Your task to perform on an android device: open app "Truecaller" Image 0: 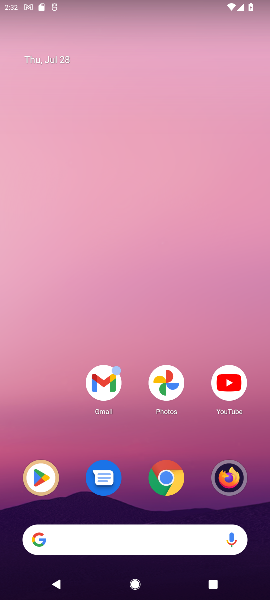
Step 0: press home button
Your task to perform on an android device: open app "Truecaller" Image 1: 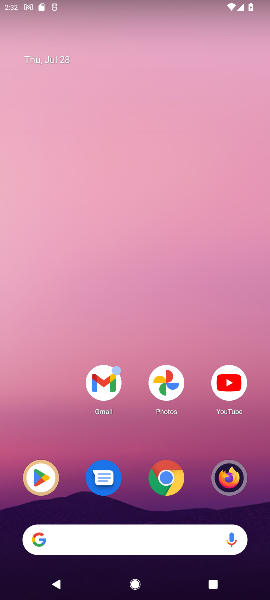
Step 1: drag from (192, 328) to (178, 42)
Your task to perform on an android device: open app "Truecaller" Image 2: 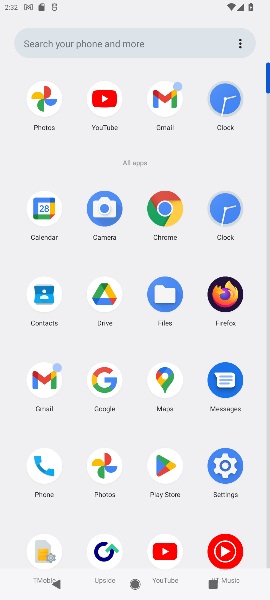
Step 2: drag from (131, 531) to (105, 253)
Your task to perform on an android device: open app "Truecaller" Image 3: 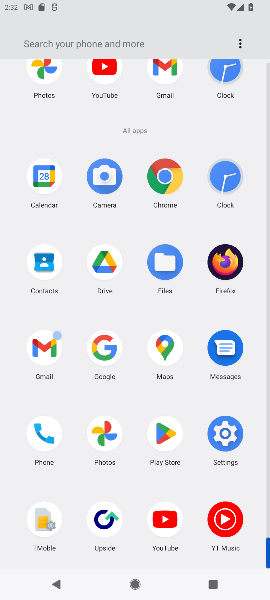
Step 3: click (159, 435)
Your task to perform on an android device: open app "Truecaller" Image 4: 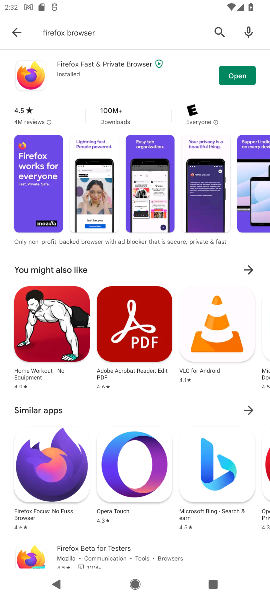
Step 4: click (13, 27)
Your task to perform on an android device: open app "Truecaller" Image 5: 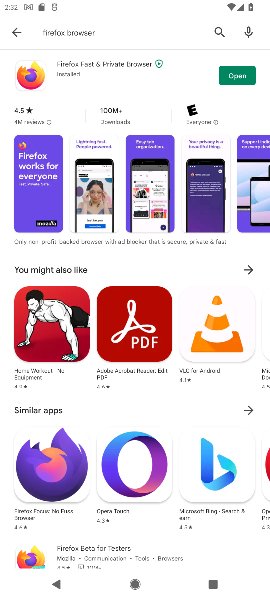
Step 5: click (111, 35)
Your task to perform on an android device: open app "Truecaller" Image 6: 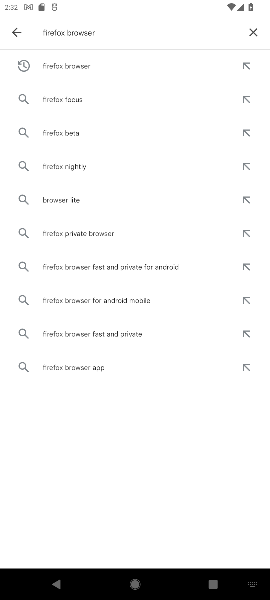
Step 6: click (254, 26)
Your task to perform on an android device: open app "Truecaller" Image 7: 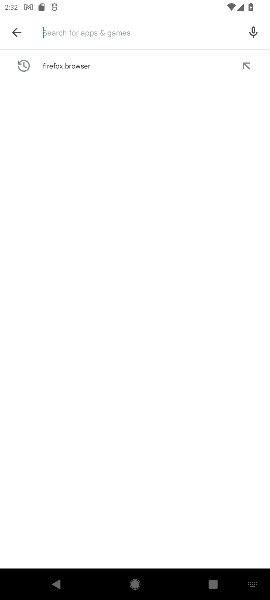
Step 7: type "Truecaller"
Your task to perform on an android device: open app "Truecaller" Image 8: 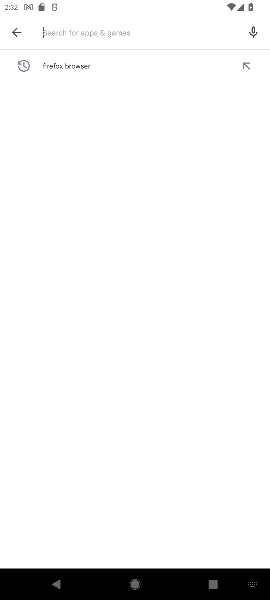
Step 8: click (83, 32)
Your task to perform on an android device: open app "Truecaller" Image 9: 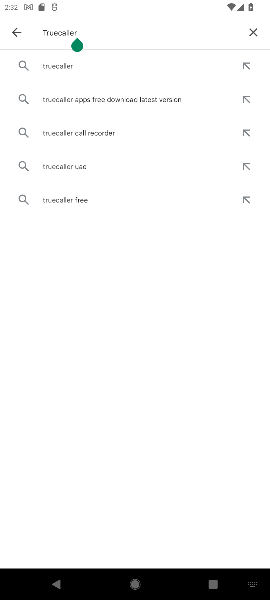
Step 9: click (47, 62)
Your task to perform on an android device: open app "Truecaller" Image 10: 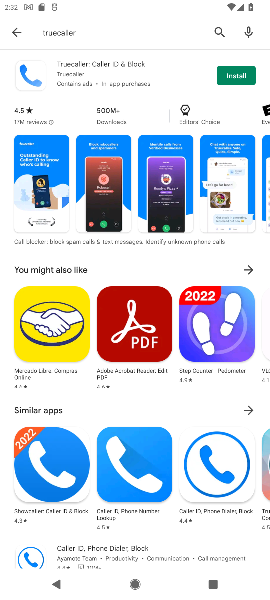
Step 10: click (227, 76)
Your task to perform on an android device: open app "Truecaller" Image 11: 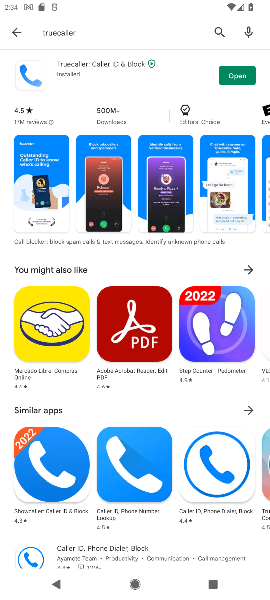
Step 11: click (227, 74)
Your task to perform on an android device: open app "Truecaller" Image 12: 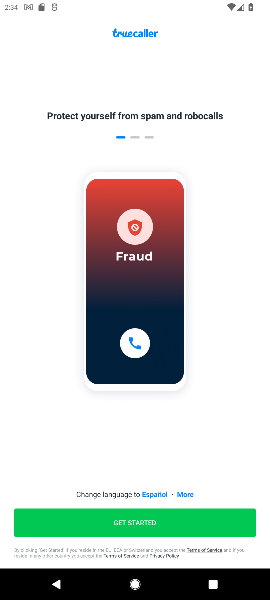
Step 12: click (164, 525)
Your task to perform on an android device: open app "Truecaller" Image 13: 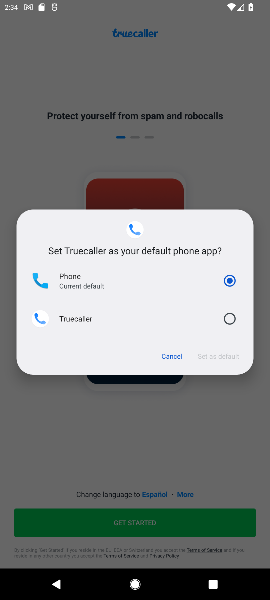
Step 13: click (230, 316)
Your task to perform on an android device: open app "Truecaller" Image 14: 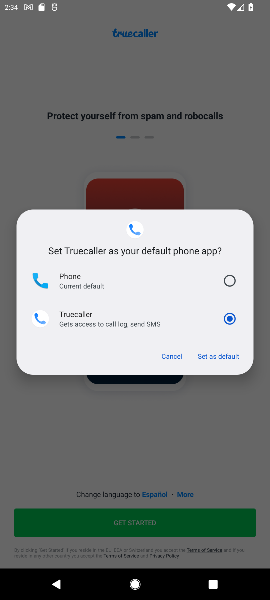
Step 14: click (227, 353)
Your task to perform on an android device: open app "Truecaller" Image 15: 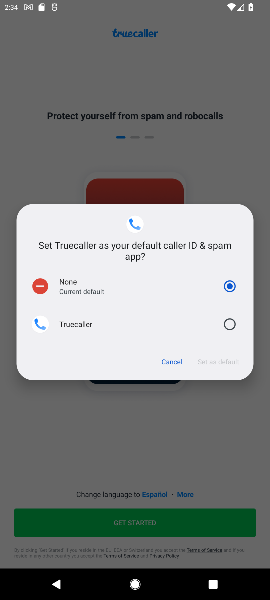
Step 15: click (231, 320)
Your task to perform on an android device: open app "Truecaller" Image 16: 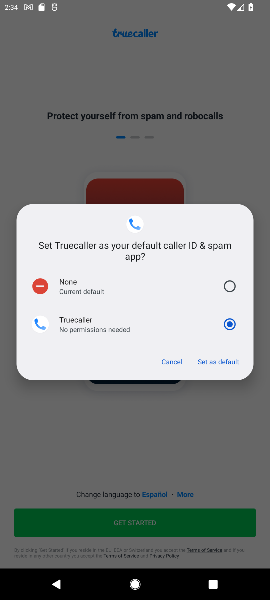
Step 16: click (219, 361)
Your task to perform on an android device: open app "Truecaller" Image 17: 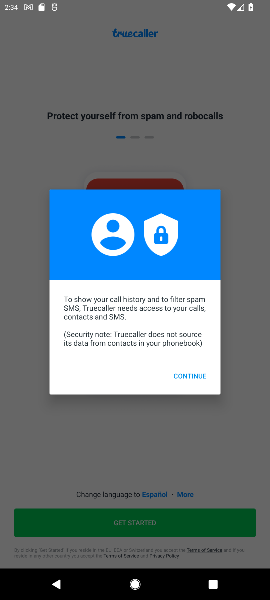
Step 17: click (197, 374)
Your task to perform on an android device: open app "Truecaller" Image 18: 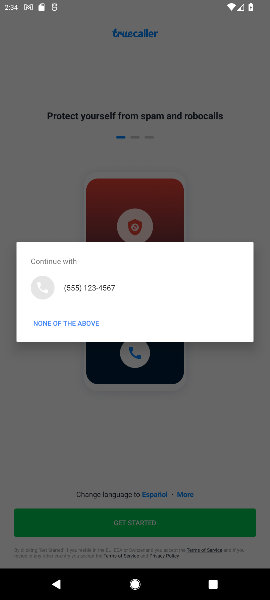
Step 18: click (164, 524)
Your task to perform on an android device: open app "Truecaller" Image 19: 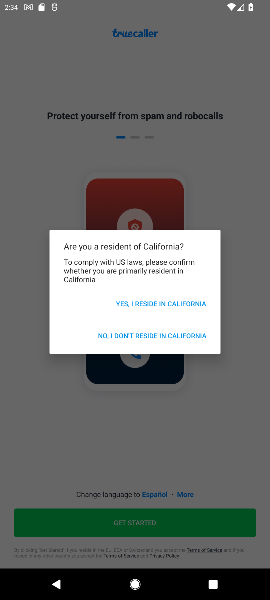
Step 19: click (174, 299)
Your task to perform on an android device: open app "Truecaller" Image 20: 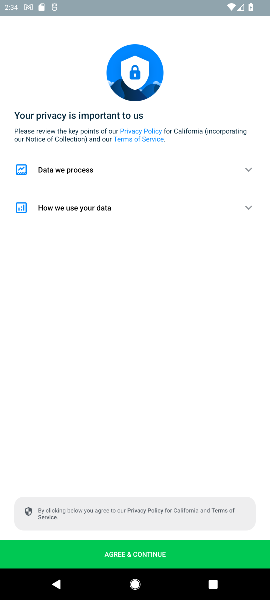
Step 20: click (168, 553)
Your task to perform on an android device: open app "Truecaller" Image 21: 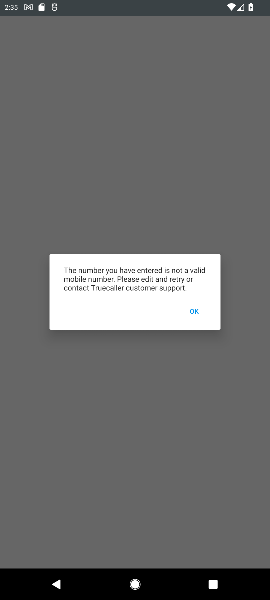
Step 21: click (195, 309)
Your task to perform on an android device: open app "Truecaller" Image 22: 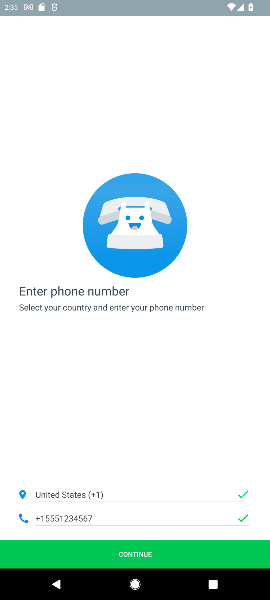
Step 22: click (173, 558)
Your task to perform on an android device: open app "Truecaller" Image 23: 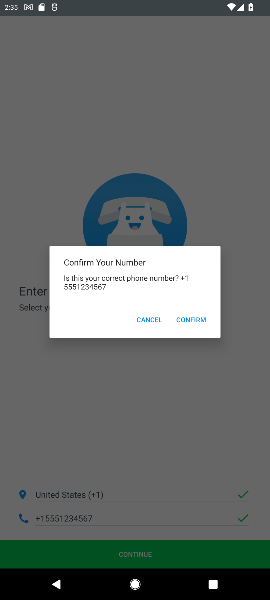
Step 23: click (197, 317)
Your task to perform on an android device: open app "Truecaller" Image 24: 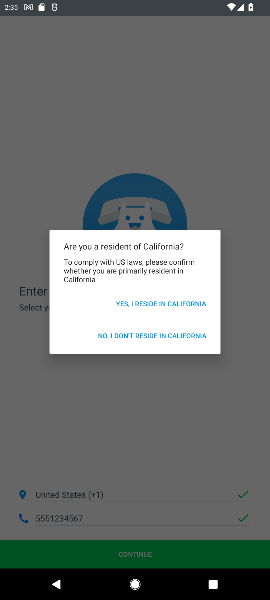
Step 24: click (195, 305)
Your task to perform on an android device: open app "Truecaller" Image 25: 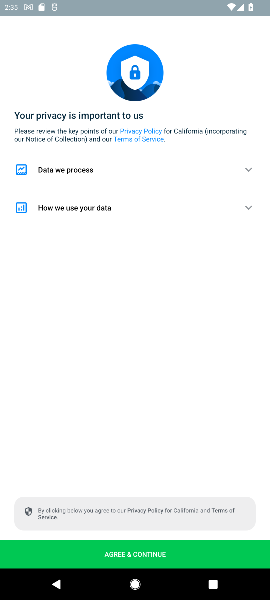
Step 25: task complete